Your task to perform on an android device: Go to notification settings Image 0: 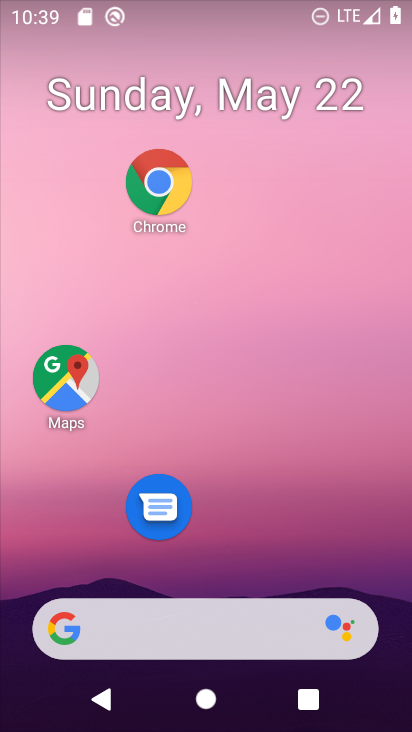
Step 0: drag from (258, 686) to (147, 21)
Your task to perform on an android device: Go to notification settings Image 1: 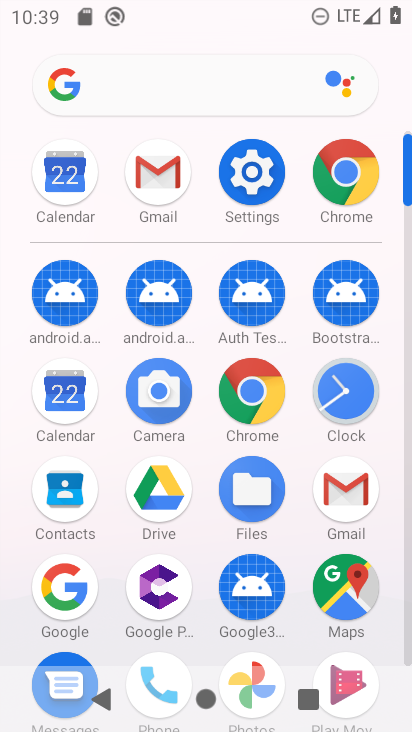
Step 1: click (243, 177)
Your task to perform on an android device: Go to notification settings Image 2: 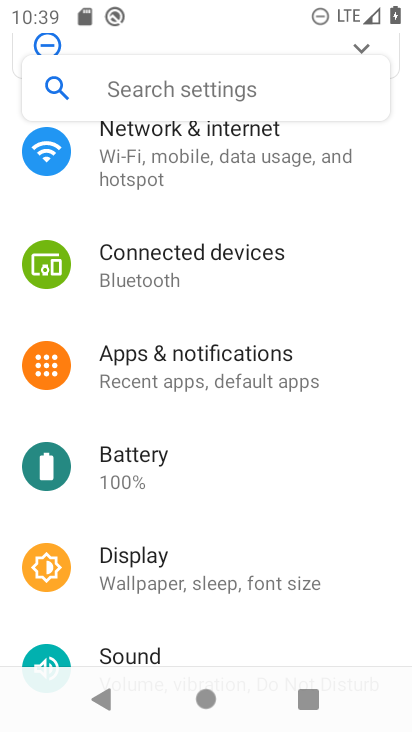
Step 2: click (262, 371)
Your task to perform on an android device: Go to notification settings Image 3: 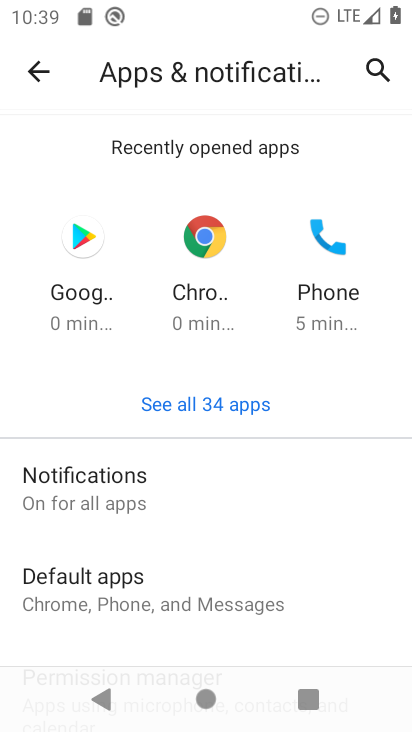
Step 3: task complete